Your task to perform on an android device: turn on priority inbox in the gmail app Image 0: 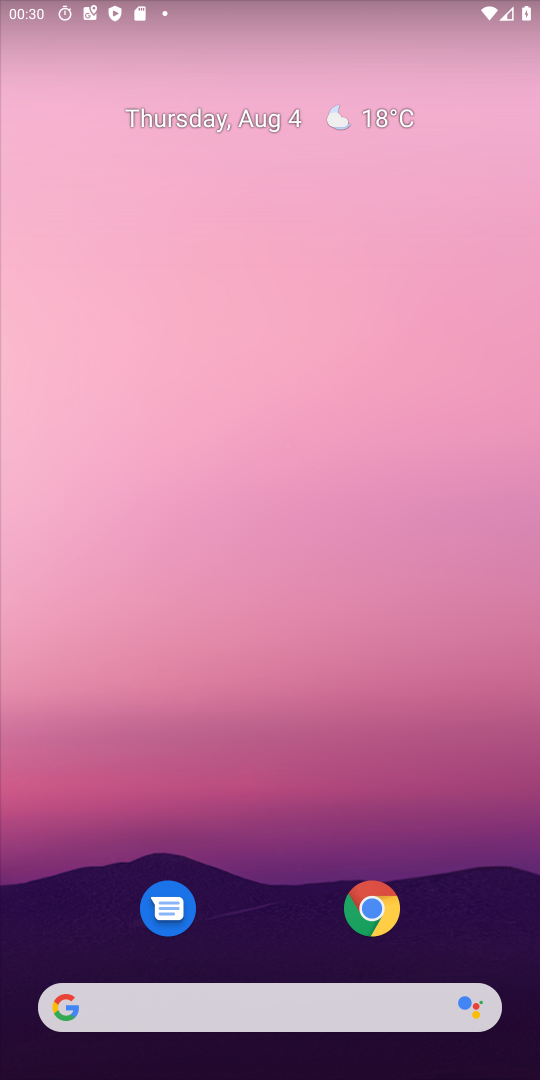
Step 0: drag from (359, 1039) to (167, 165)
Your task to perform on an android device: turn on priority inbox in the gmail app Image 1: 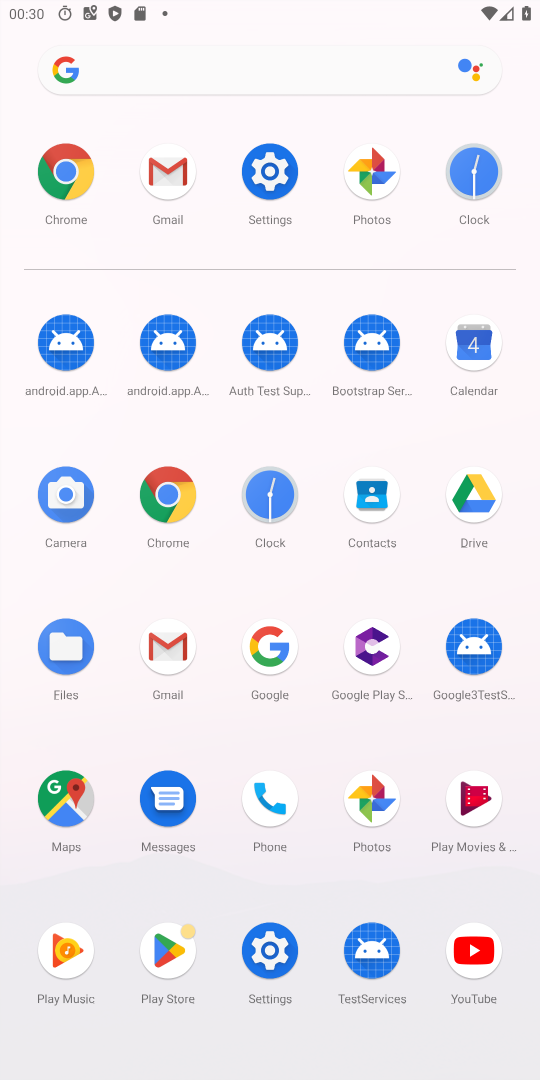
Step 1: click (160, 153)
Your task to perform on an android device: turn on priority inbox in the gmail app Image 2: 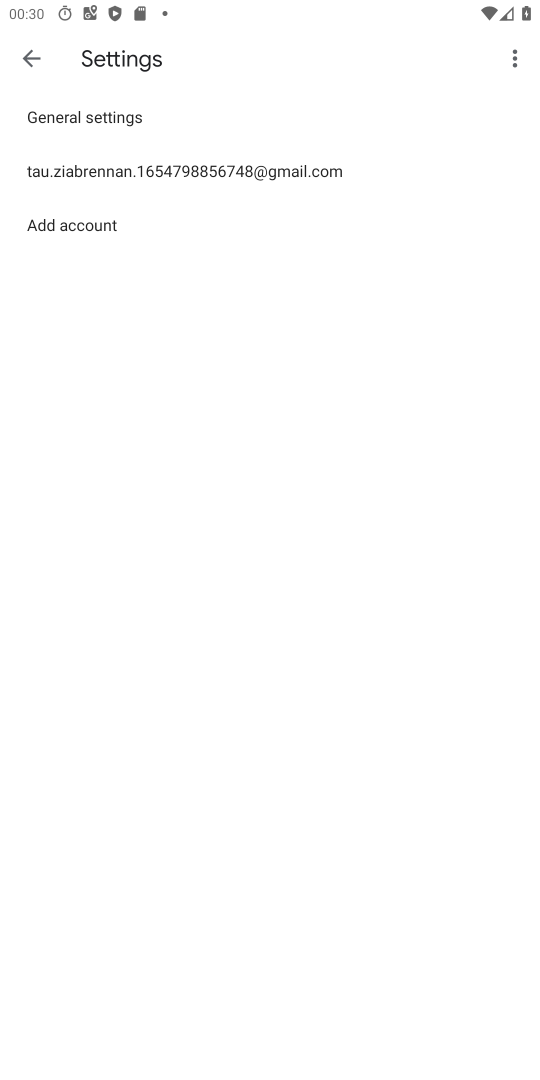
Step 2: click (121, 193)
Your task to perform on an android device: turn on priority inbox in the gmail app Image 3: 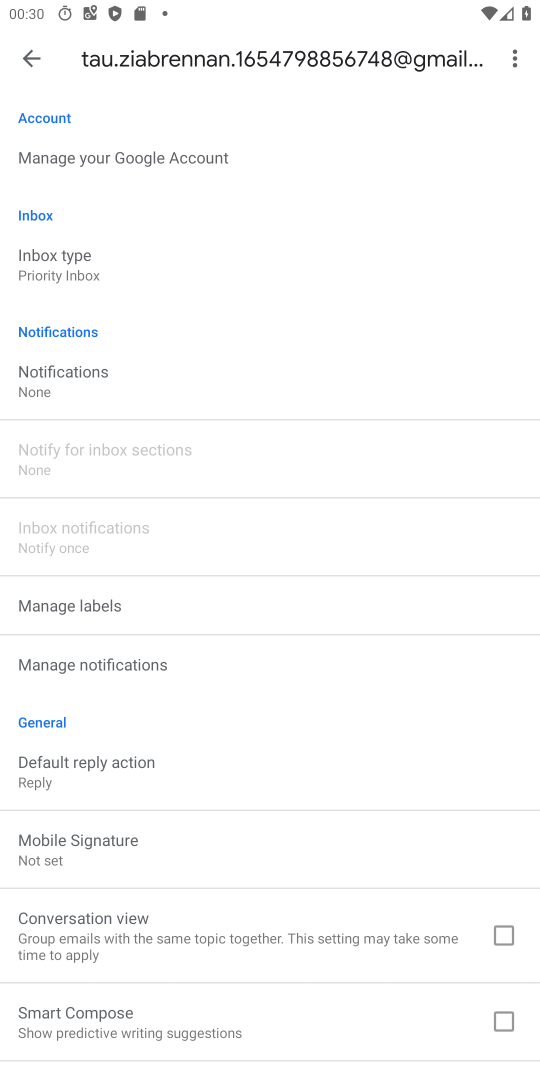
Step 3: click (93, 269)
Your task to perform on an android device: turn on priority inbox in the gmail app Image 4: 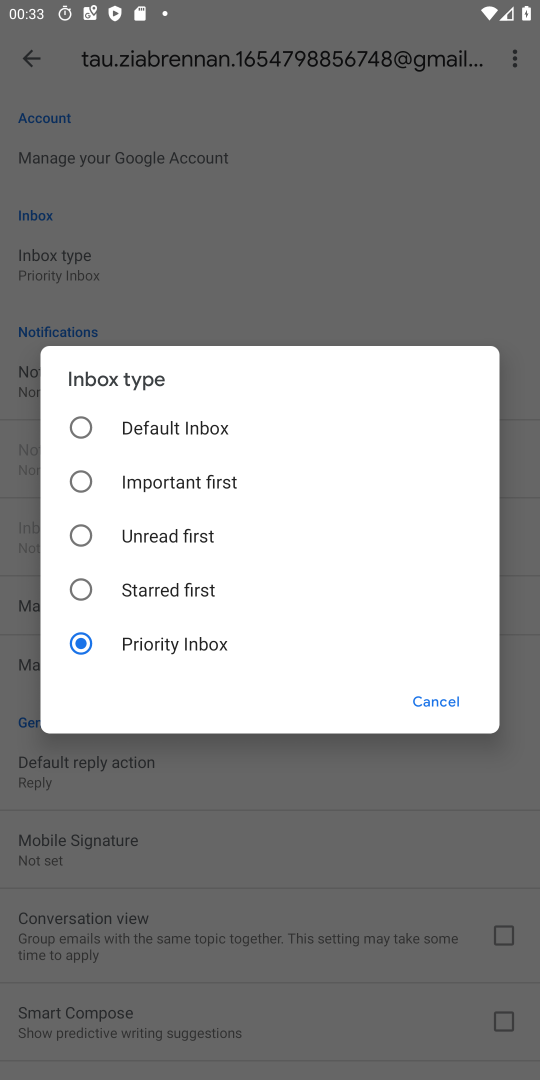
Step 4: task complete